Your task to perform on an android device: change the upload size in google photos Image 0: 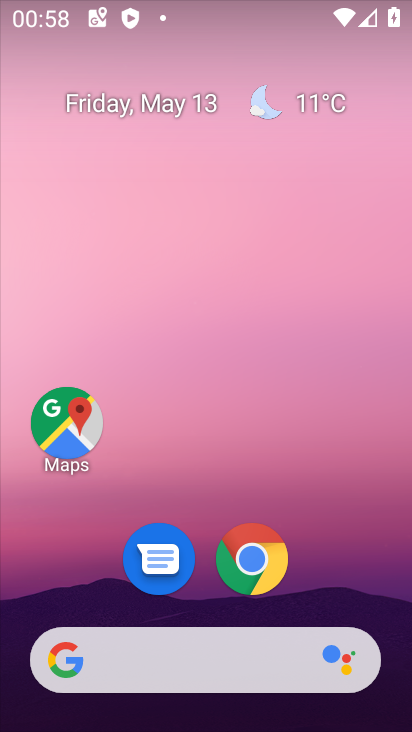
Step 0: drag from (325, 484) to (310, 112)
Your task to perform on an android device: change the upload size in google photos Image 1: 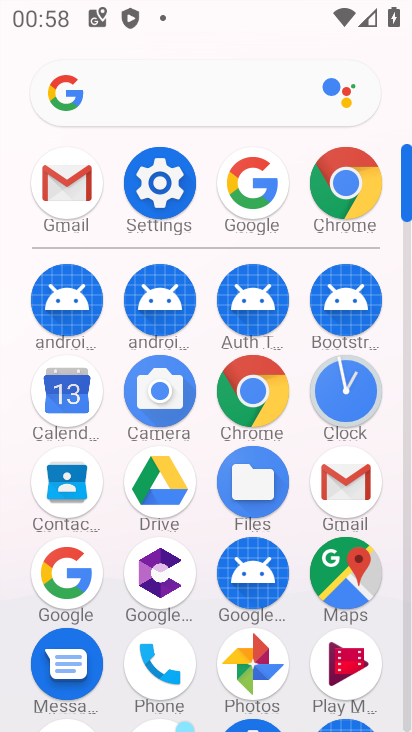
Step 1: click (254, 661)
Your task to perform on an android device: change the upload size in google photos Image 2: 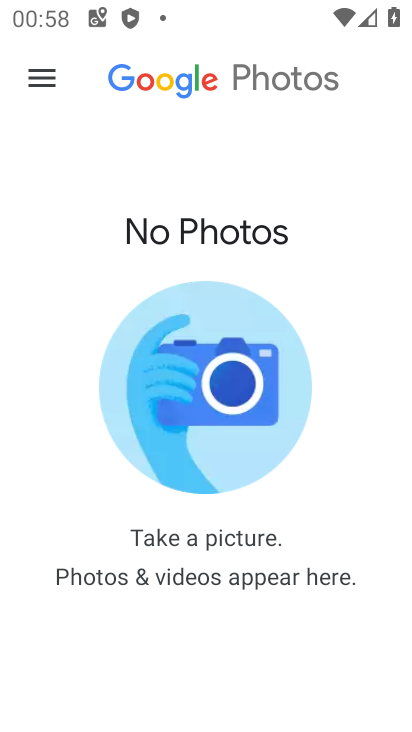
Step 2: click (40, 82)
Your task to perform on an android device: change the upload size in google photos Image 3: 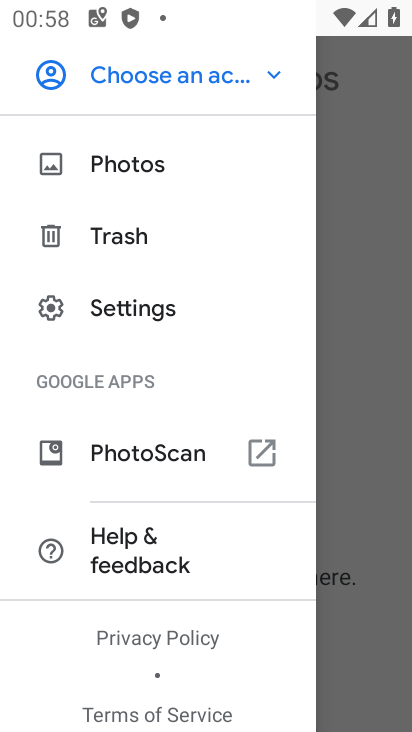
Step 3: click (131, 313)
Your task to perform on an android device: change the upload size in google photos Image 4: 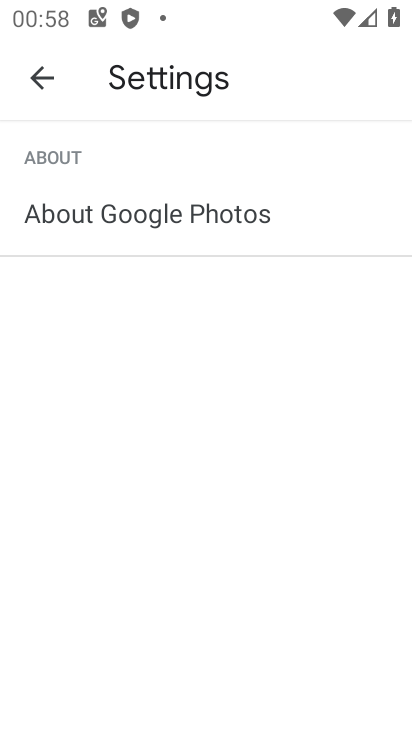
Step 4: task complete